Your task to perform on an android device: Go to ESPN.com Image 0: 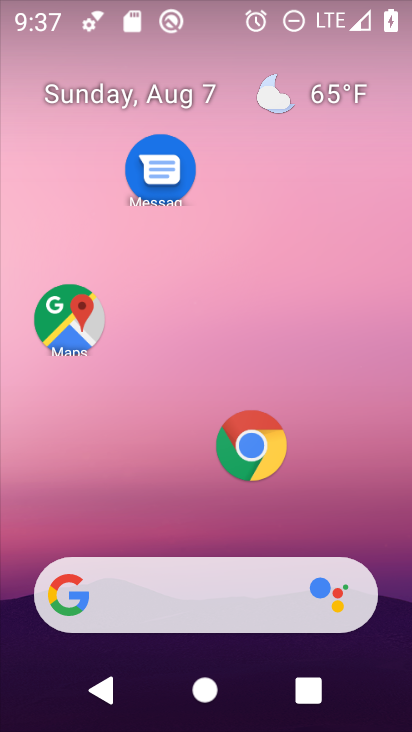
Step 0: press home button
Your task to perform on an android device: Go to ESPN.com Image 1: 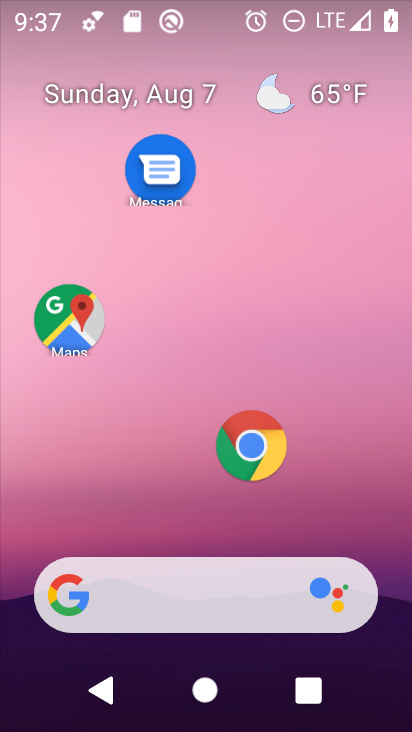
Step 1: drag from (188, 522) to (229, 31)
Your task to perform on an android device: Go to ESPN.com Image 2: 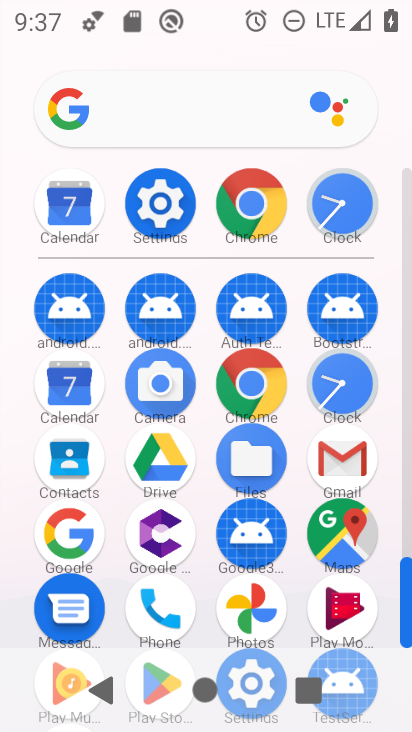
Step 2: click (244, 196)
Your task to perform on an android device: Go to ESPN.com Image 3: 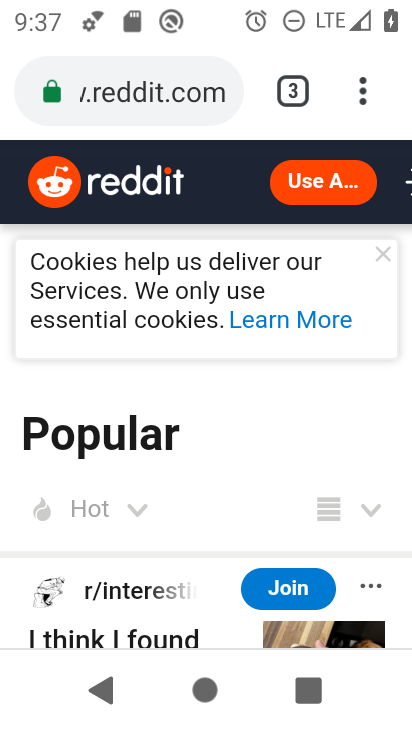
Step 3: click (287, 83)
Your task to perform on an android device: Go to ESPN.com Image 4: 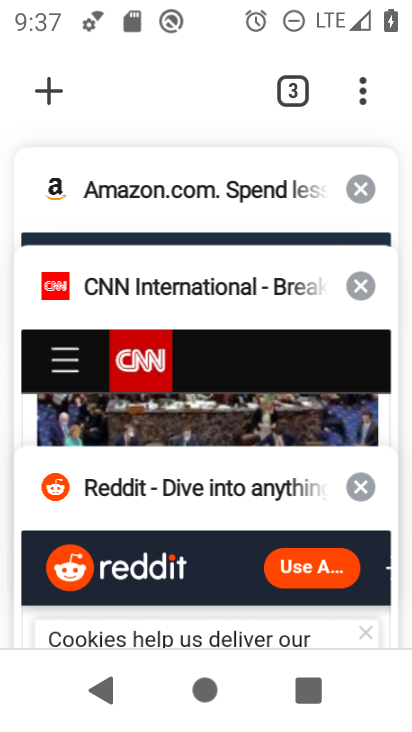
Step 4: click (52, 90)
Your task to perform on an android device: Go to ESPN.com Image 5: 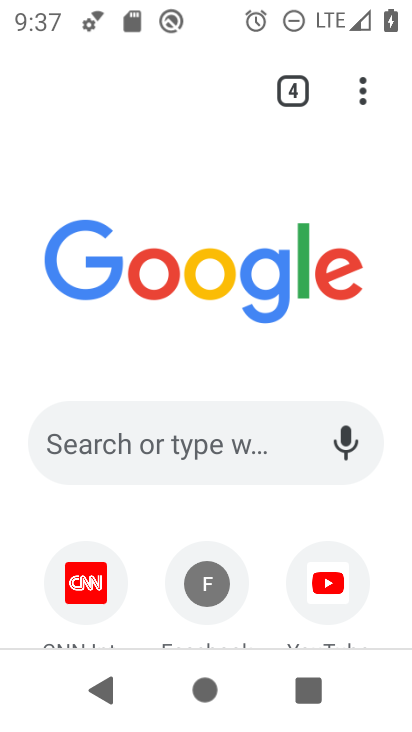
Step 5: drag from (255, 532) to (248, 98)
Your task to perform on an android device: Go to ESPN.com Image 6: 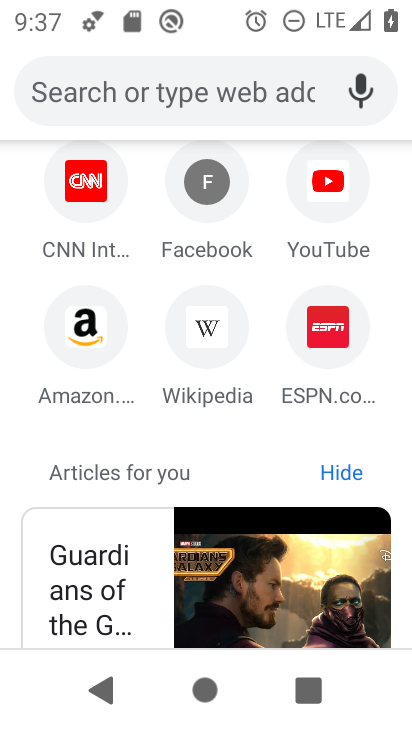
Step 6: click (329, 324)
Your task to perform on an android device: Go to ESPN.com Image 7: 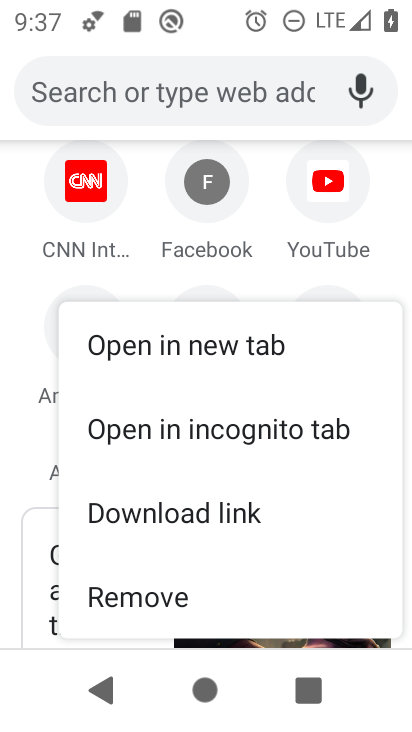
Step 7: click (12, 445)
Your task to perform on an android device: Go to ESPN.com Image 8: 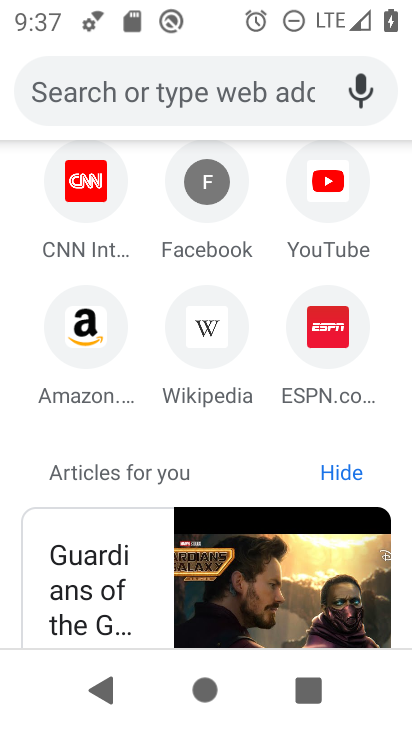
Step 8: click (328, 330)
Your task to perform on an android device: Go to ESPN.com Image 9: 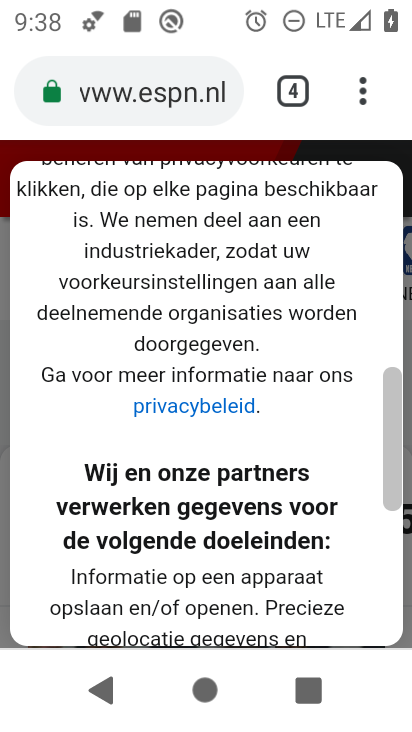
Step 9: drag from (224, 598) to (231, 146)
Your task to perform on an android device: Go to ESPN.com Image 10: 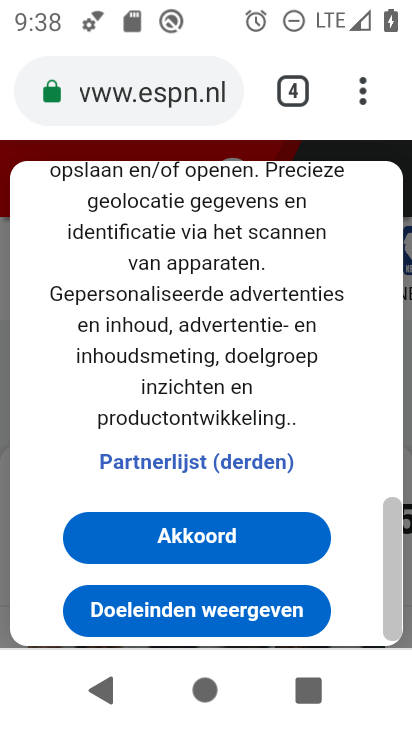
Step 10: click (206, 535)
Your task to perform on an android device: Go to ESPN.com Image 11: 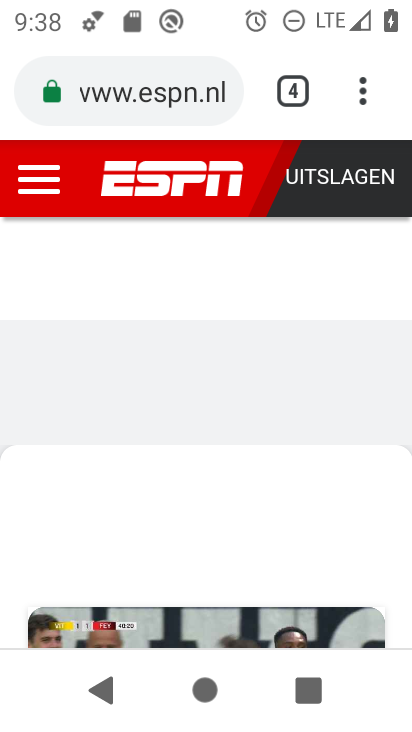
Step 11: task complete